Your task to perform on an android device: check data usage Image 0: 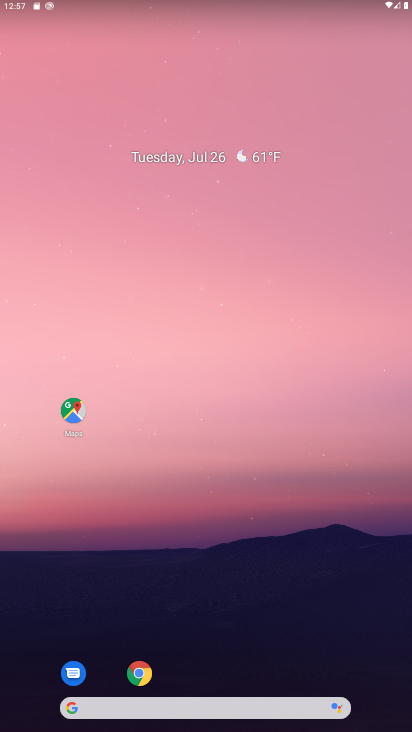
Step 0: drag from (258, 595) to (243, 112)
Your task to perform on an android device: check data usage Image 1: 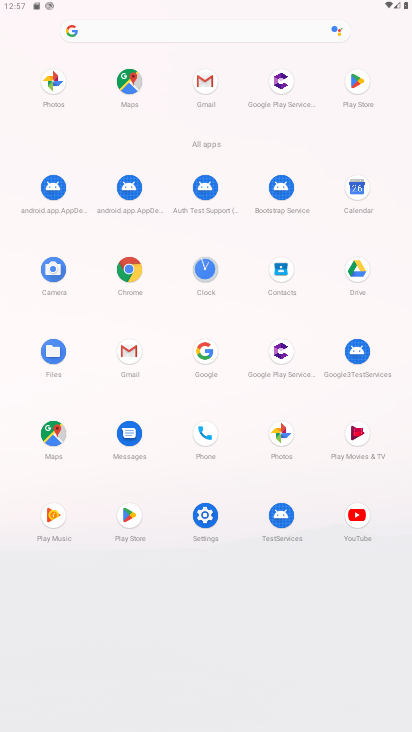
Step 1: click (212, 515)
Your task to perform on an android device: check data usage Image 2: 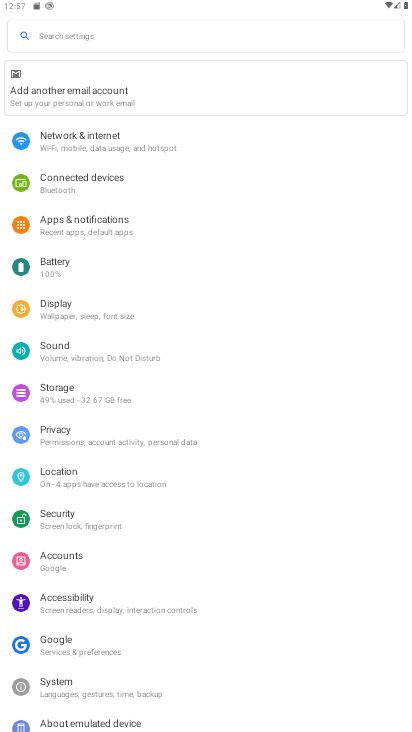
Step 2: click (112, 146)
Your task to perform on an android device: check data usage Image 3: 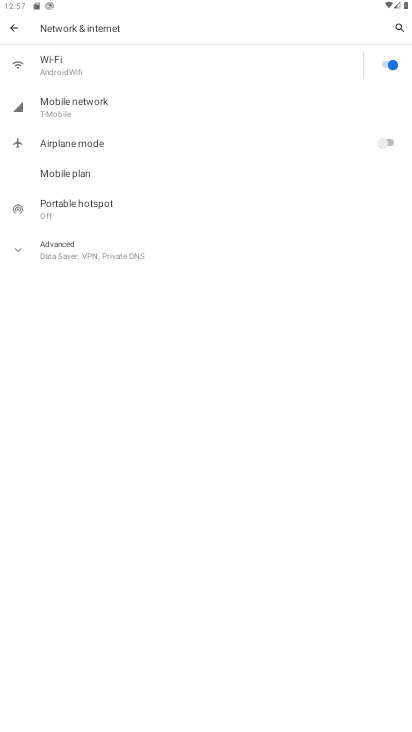
Step 3: click (98, 108)
Your task to perform on an android device: check data usage Image 4: 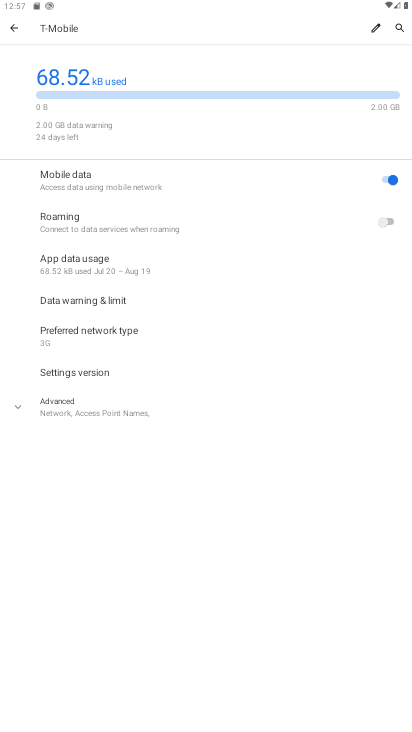
Step 4: click (231, 270)
Your task to perform on an android device: check data usage Image 5: 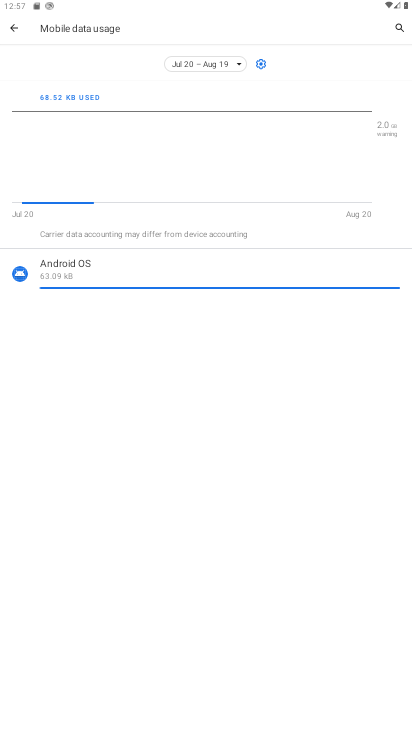
Step 5: task complete